Your task to perform on an android device: change timer sound Image 0: 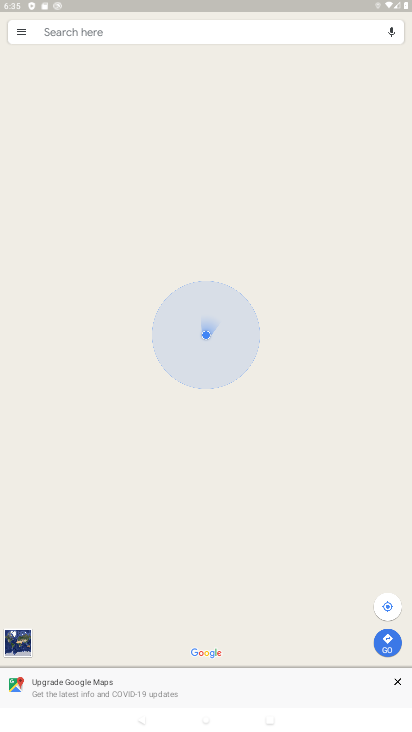
Step 0: press home button
Your task to perform on an android device: change timer sound Image 1: 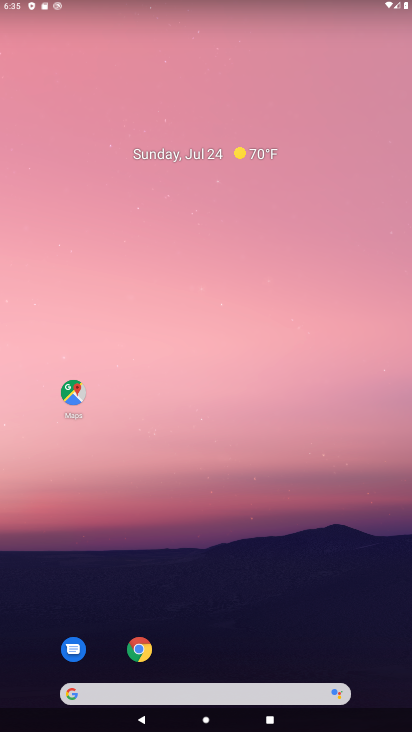
Step 1: drag from (213, 587) to (167, 81)
Your task to perform on an android device: change timer sound Image 2: 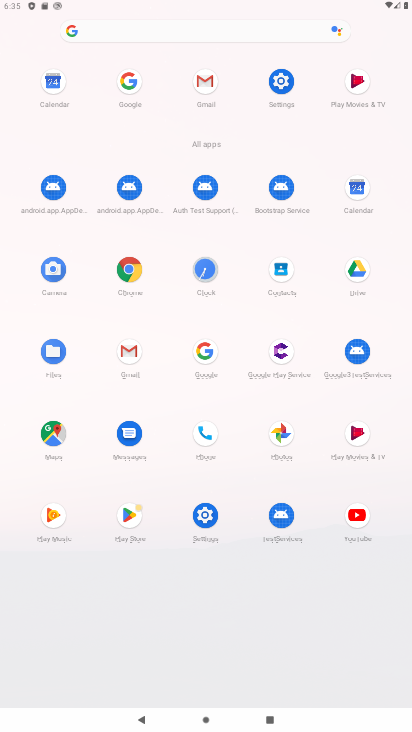
Step 2: click (203, 272)
Your task to perform on an android device: change timer sound Image 3: 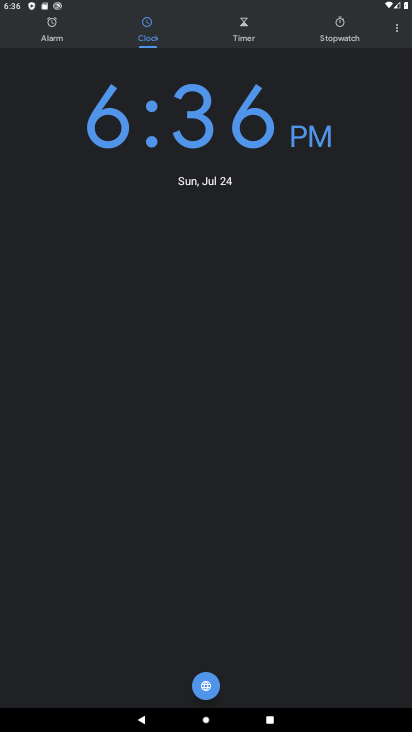
Step 3: click (397, 34)
Your task to perform on an android device: change timer sound Image 4: 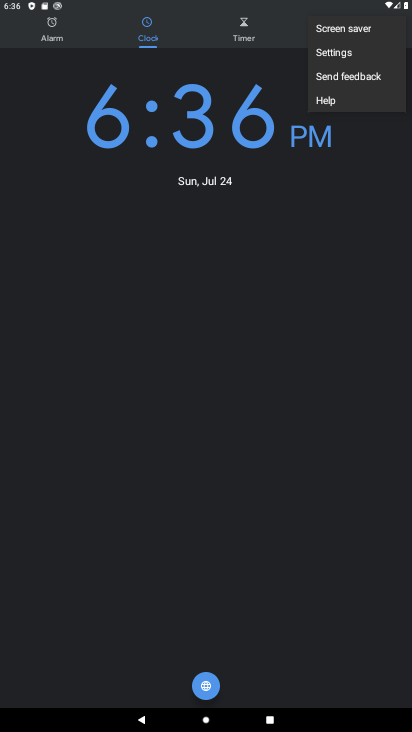
Step 4: click (346, 53)
Your task to perform on an android device: change timer sound Image 5: 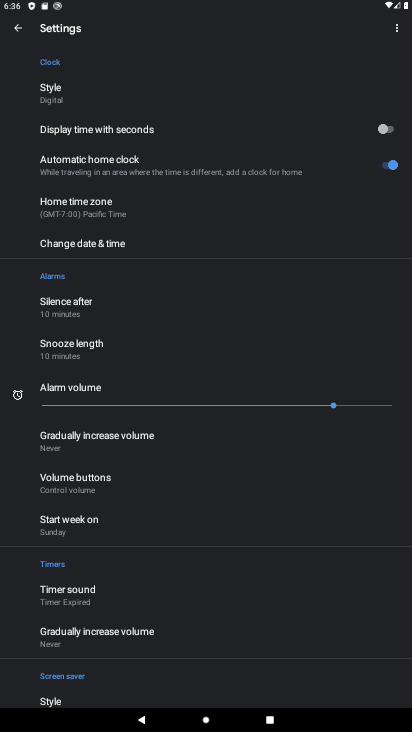
Step 5: click (76, 591)
Your task to perform on an android device: change timer sound Image 6: 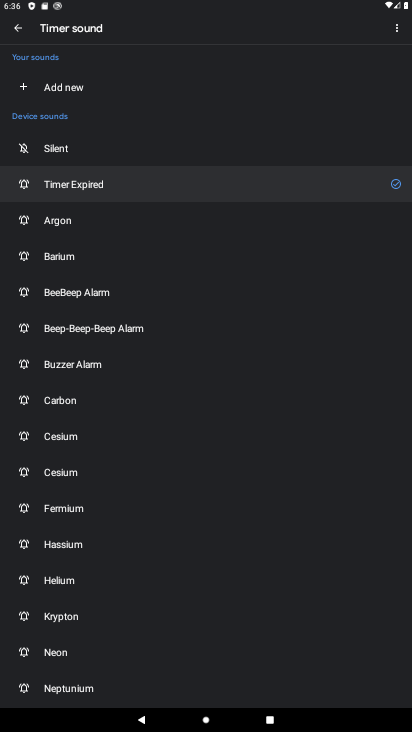
Step 6: click (58, 227)
Your task to perform on an android device: change timer sound Image 7: 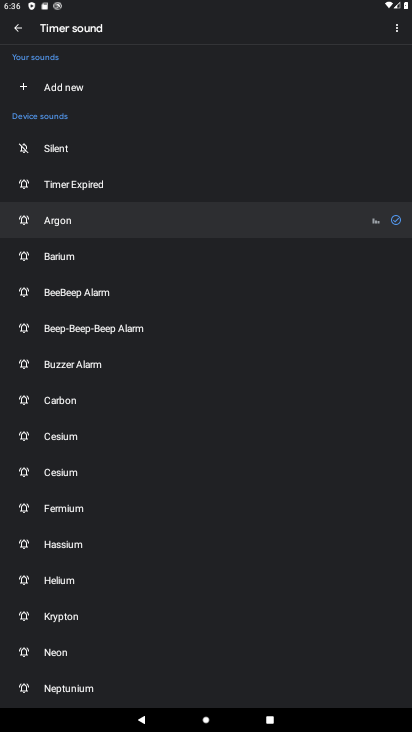
Step 7: task complete